Your task to perform on an android device: View the shopping cart on amazon.com. Search for "usb-c to usb-a" on amazon.com, select the first entry, add it to the cart, then select checkout. Image 0: 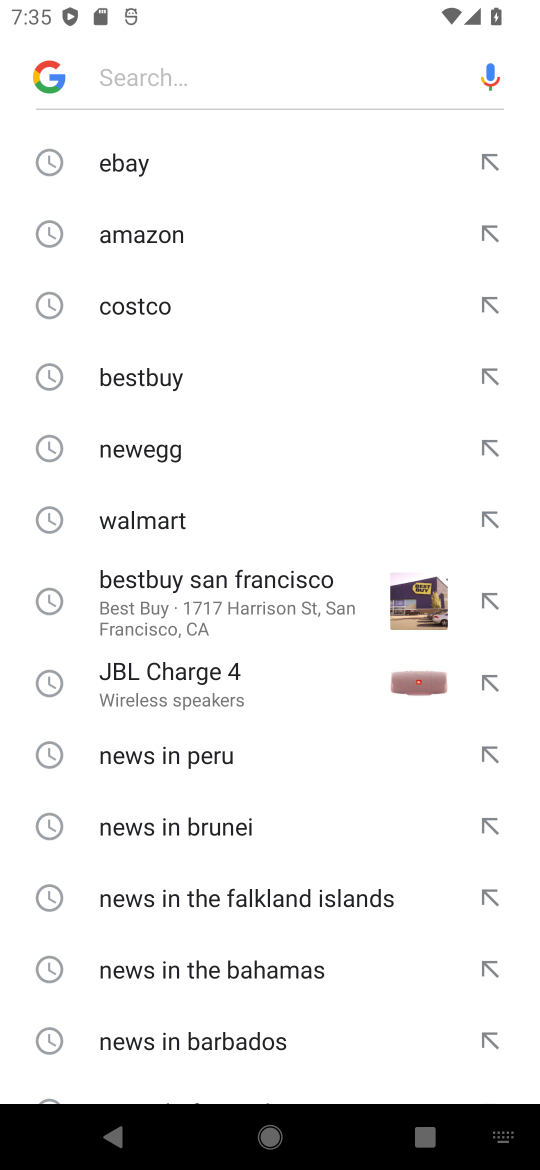
Step 0: press home button
Your task to perform on an android device: View the shopping cart on amazon.com. Search for "usb-c to usb-a" on amazon.com, select the first entry, add it to the cart, then select checkout. Image 1: 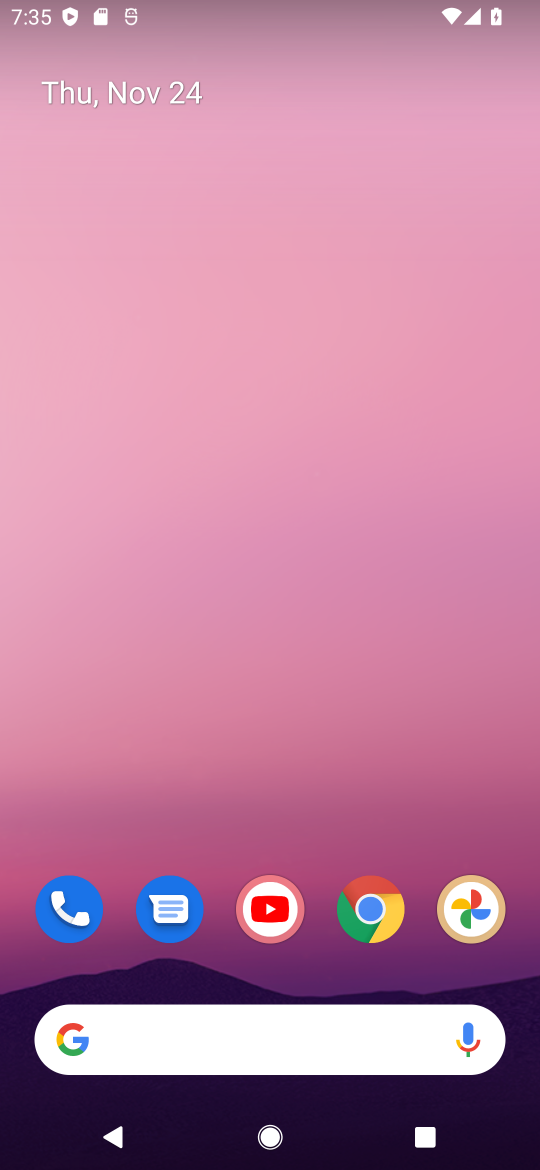
Step 1: click (391, 925)
Your task to perform on an android device: View the shopping cart on amazon.com. Search for "usb-c to usb-a" on amazon.com, select the first entry, add it to the cart, then select checkout. Image 2: 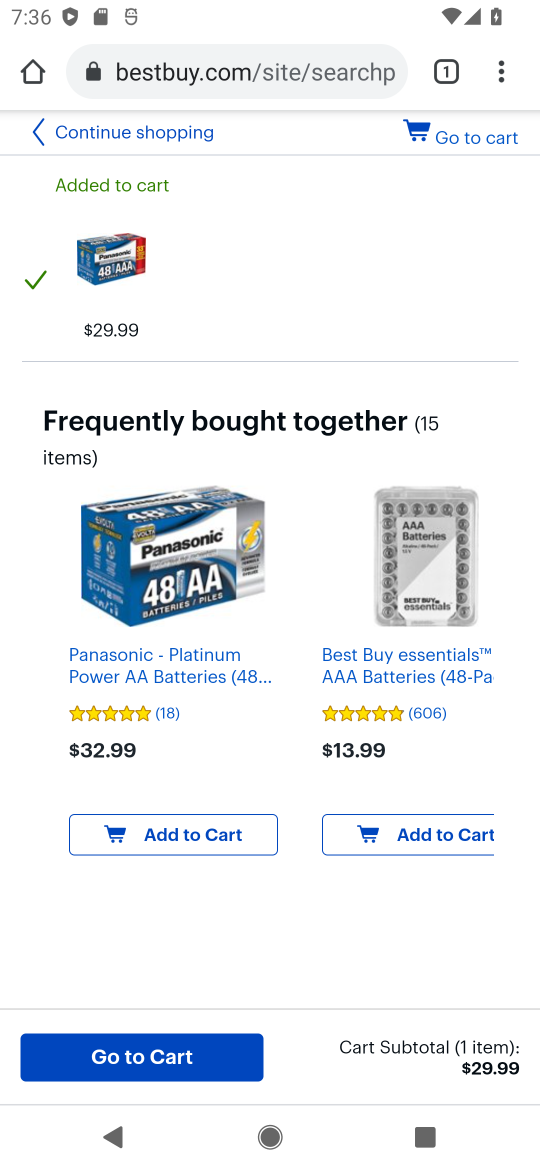
Step 2: click (298, 97)
Your task to perform on an android device: View the shopping cart on amazon.com. Search for "usb-c to usb-a" on amazon.com, select the first entry, add it to the cart, then select checkout. Image 3: 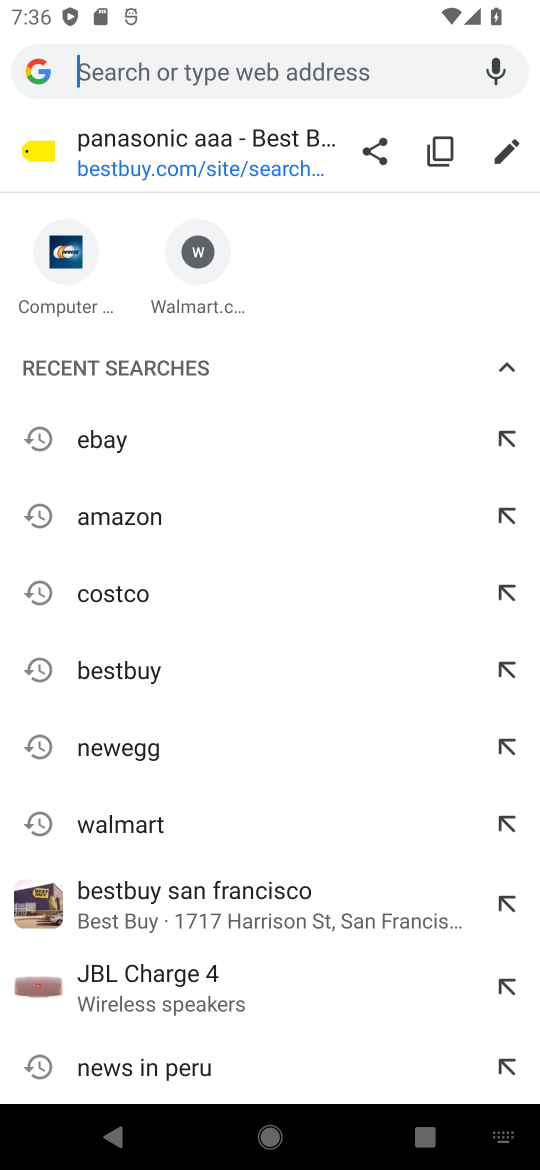
Step 3: type "amazon.com"
Your task to perform on an android device: View the shopping cart on amazon.com. Search for "usb-c to usb-a" on amazon.com, select the first entry, add it to the cart, then select checkout. Image 4: 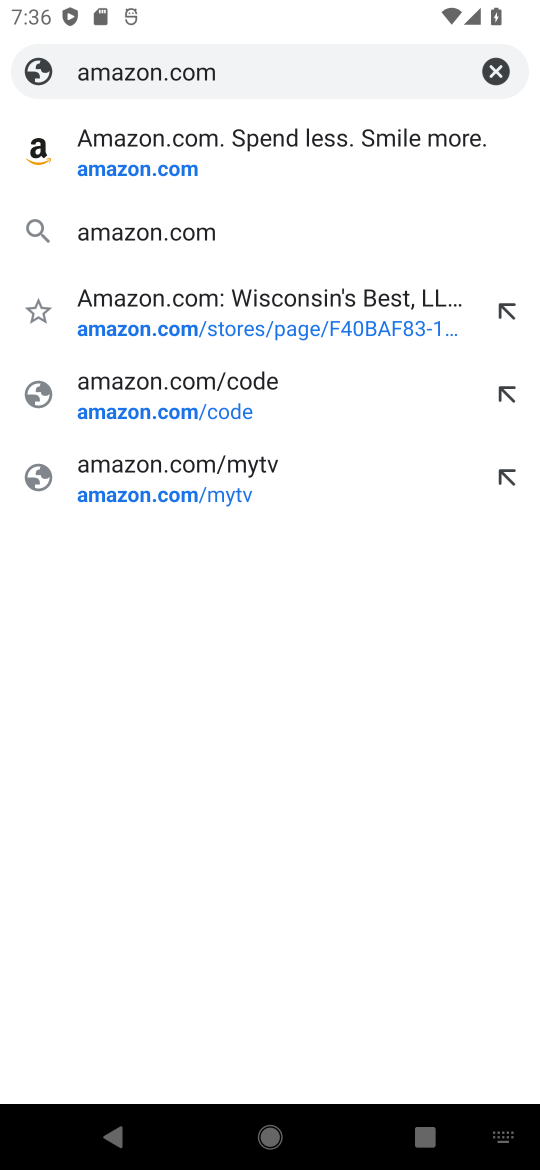
Step 4: click (257, 140)
Your task to perform on an android device: View the shopping cart on amazon.com. Search for "usb-c to usb-a" on amazon.com, select the first entry, add it to the cart, then select checkout. Image 5: 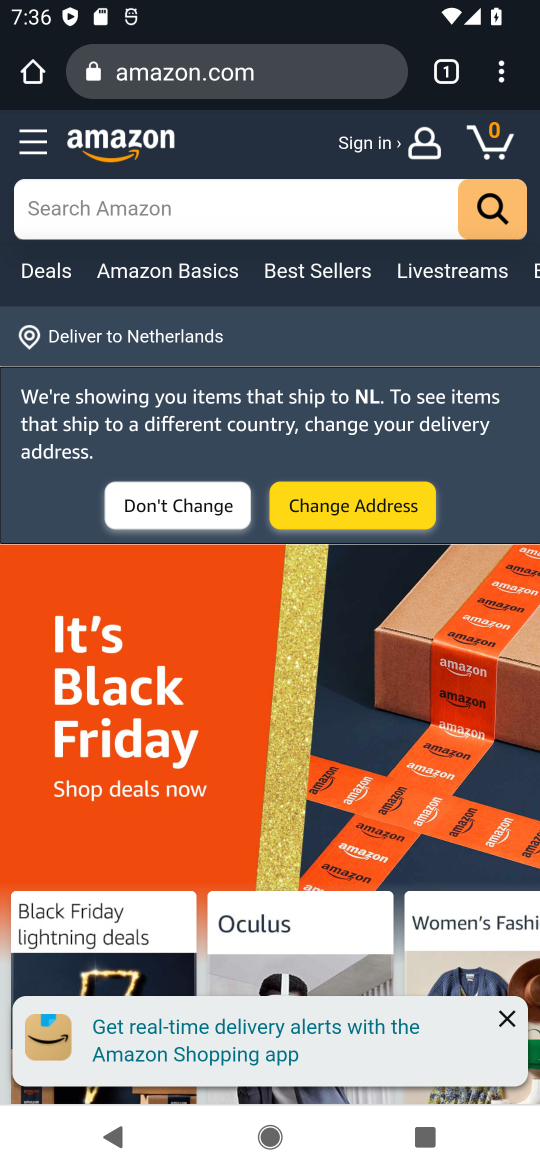
Step 5: click (507, 136)
Your task to perform on an android device: View the shopping cart on amazon.com. Search for "usb-c to usb-a" on amazon.com, select the first entry, add it to the cart, then select checkout. Image 6: 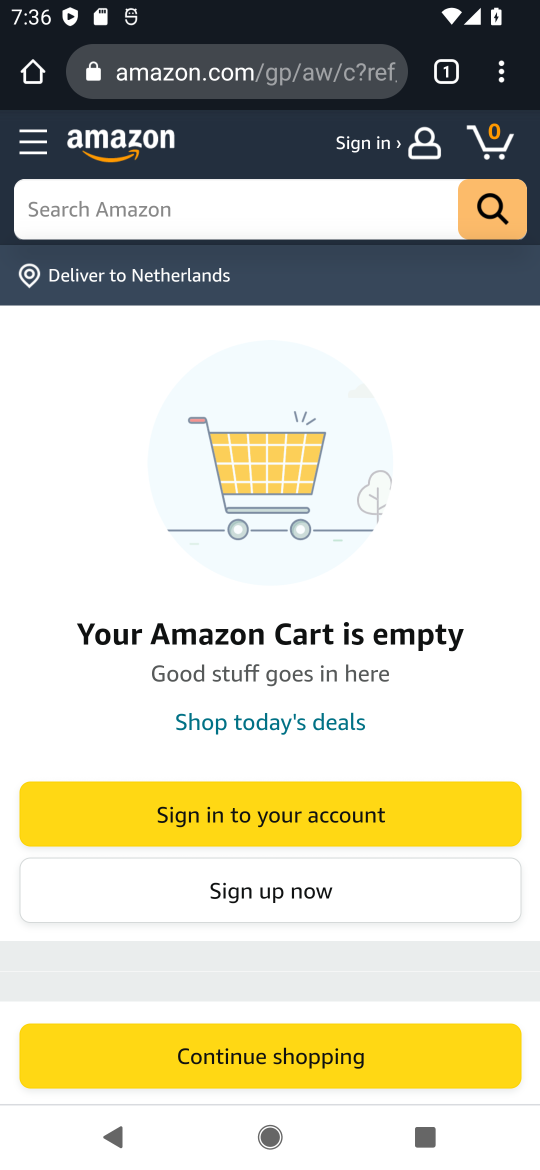
Step 6: click (245, 210)
Your task to perform on an android device: View the shopping cart on amazon.com. Search for "usb-c to usb-a" on amazon.com, select the first entry, add it to the cart, then select checkout. Image 7: 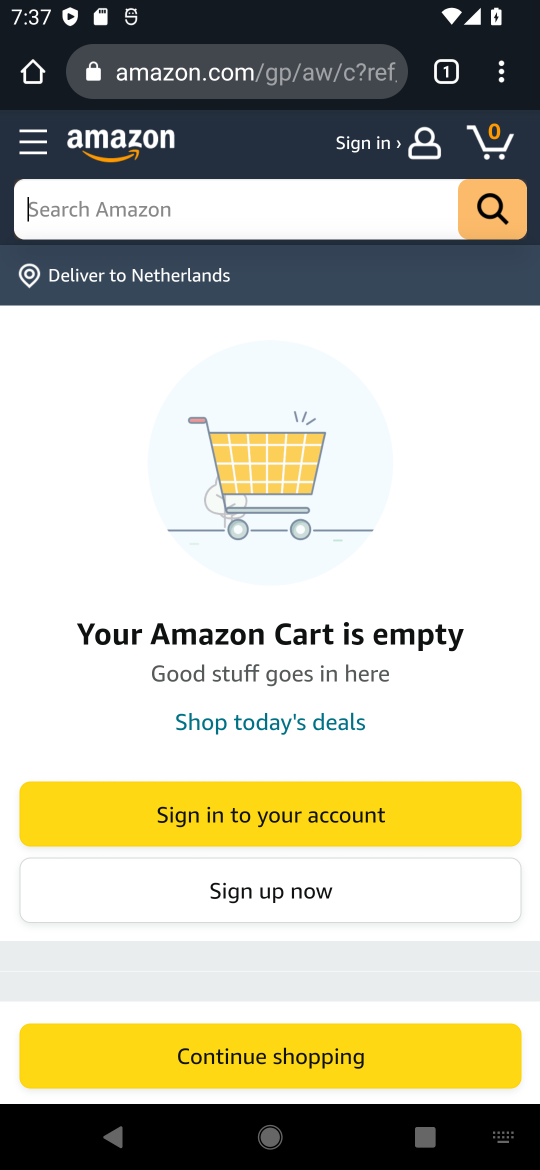
Step 7: type "usb-c to usb-a"
Your task to perform on an android device: View the shopping cart on amazon.com. Search for "usb-c to usb-a" on amazon.com, select the first entry, add it to the cart, then select checkout. Image 8: 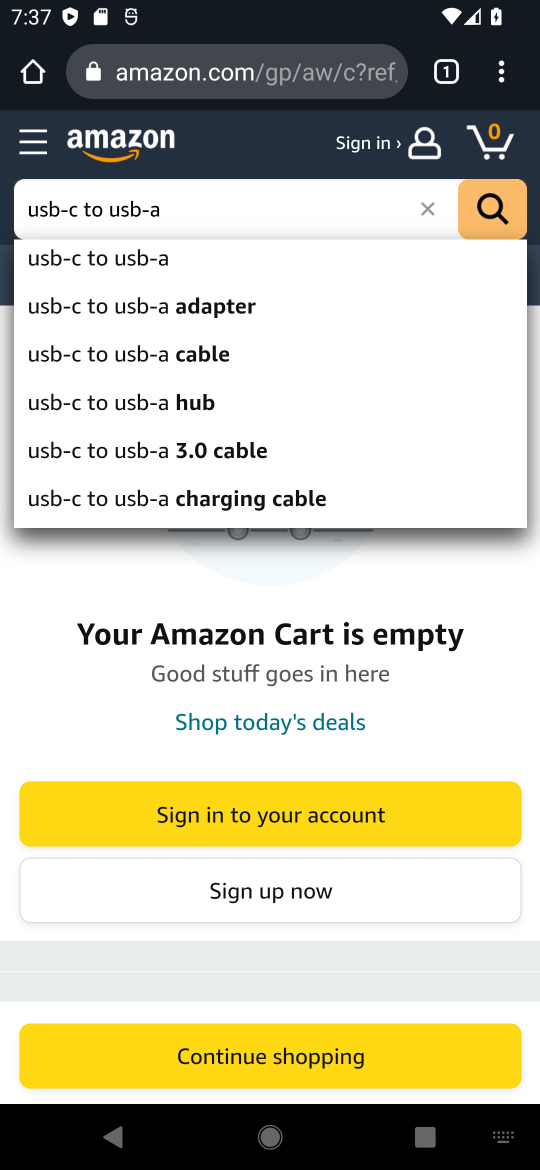
Step 8: click (196, 258)
Your task to perform on an android device: View the shopping cart on amazon.com. Search for "usb-c to usb-a" on amazon.com, select the first entry, add it to the cart, then select checkout. Image 9: 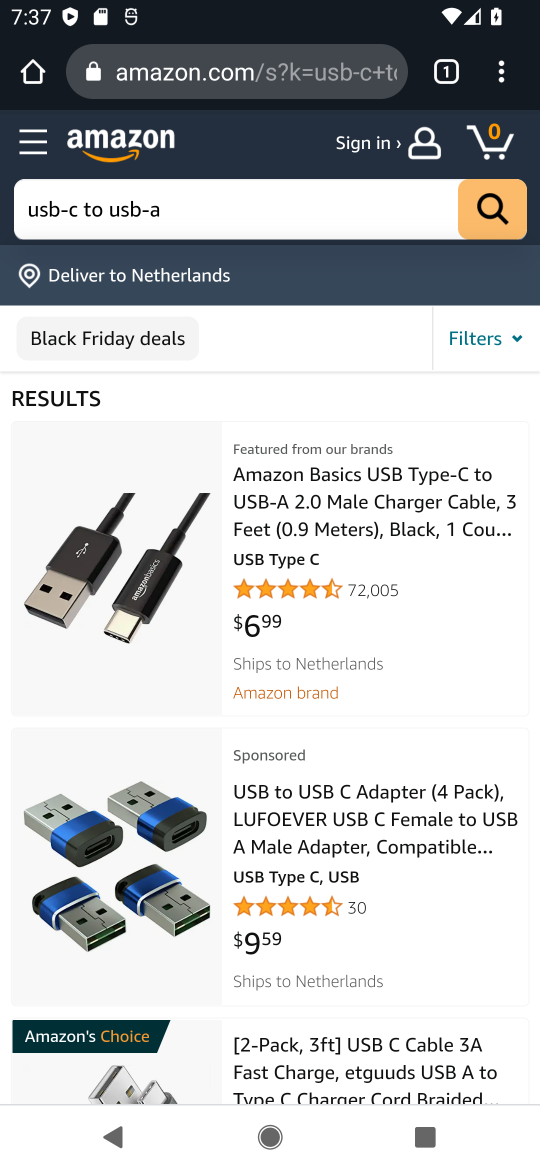
Step 9: click (259, 543)
Your task to perform on an android device: View the shopping cart on amazon.com. Search for "usb-c to usb-a" on amazon.com, select the first entry, add it to the cart, then select checkout. Image 10: 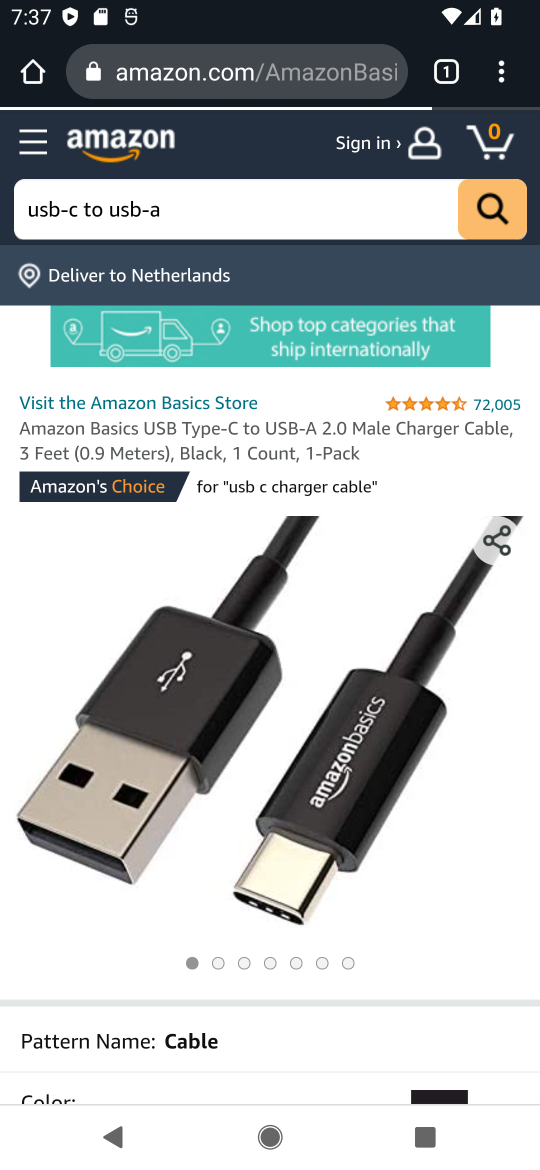
Step 10: drag from (378, 983) to (378, 456)
Your task to perform on an android device: View the shopping cart on amazon.com. Search for "usb-c to usb-a" on amazon.com, select the first entry, add it to the cart, then select checkout. Image 11: 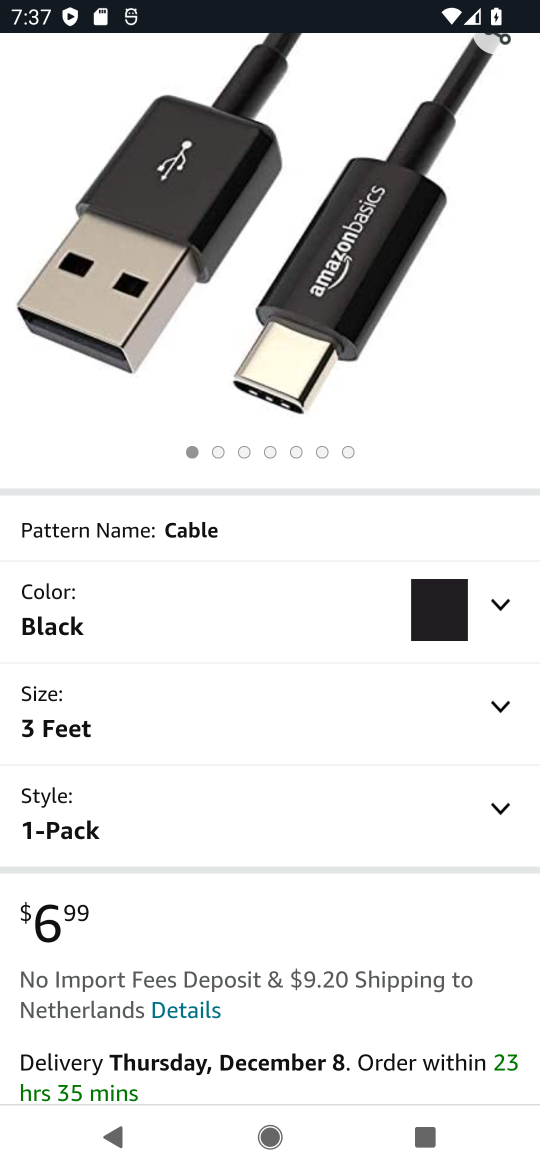
Step 11: drag from (284, 566) to (306, 268)
Your task to perform on an android device: View the shopping cart on amazon.com. Search for "usb-c to usb-a" on amazon.com, select the first entry, add it to the cart, then select checkout. Image 12: 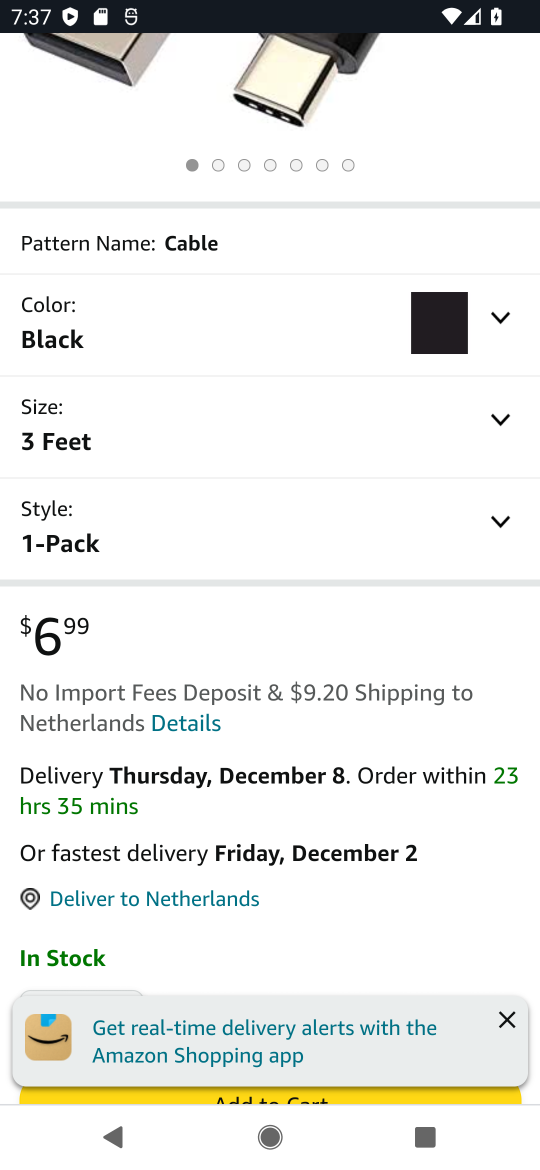
Step 12: drag from (356, 981) to (295, 470)
Your task to perform on an android device: View the shopping cart on amazon.com. Search for "usb-c to usb-a" on amazon.com, select the first entry, add it to the cart, then select checkout. Image 13: 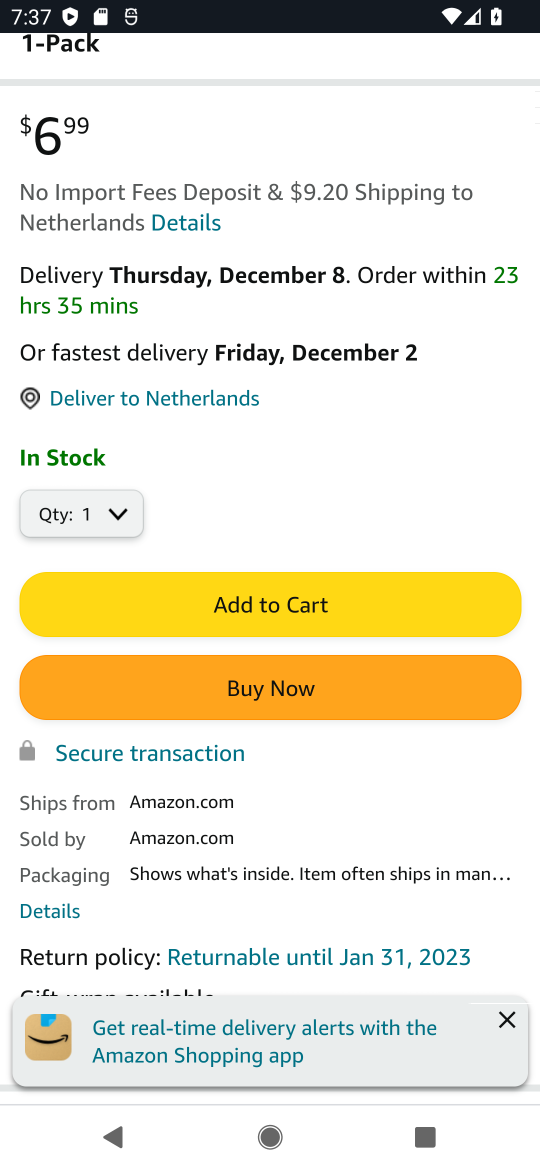
Step 13: click (257, 600)
Your task to perform on an android device: View the shopping cart on amazon.com. Search for "usb-c to usb-a" on amazon.com, select the first entry, add it to the cart, then select checkout. Image 14: 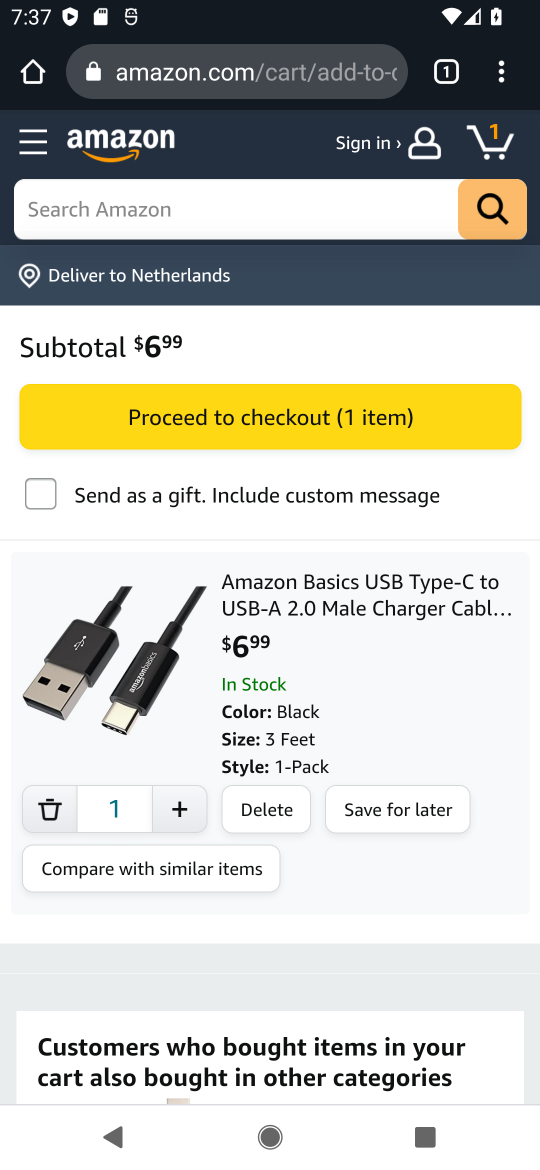
Step 14: click (395, 420)
Your task to perform on an android device: View the shopping cart on amazon.com. Search for "usb-c to usb-a" on amazon.com, select the first entry, add it to the cart, then select checkout. Image 15: 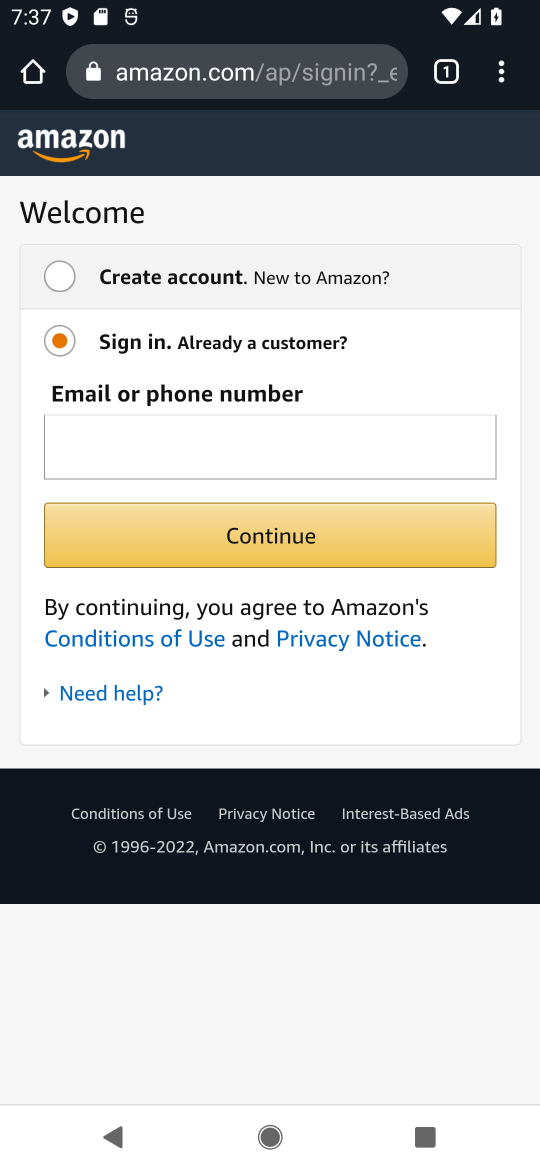
Step 15: task complete